Your task to perform on an android device: uninstall "AliExpress" Image 0: 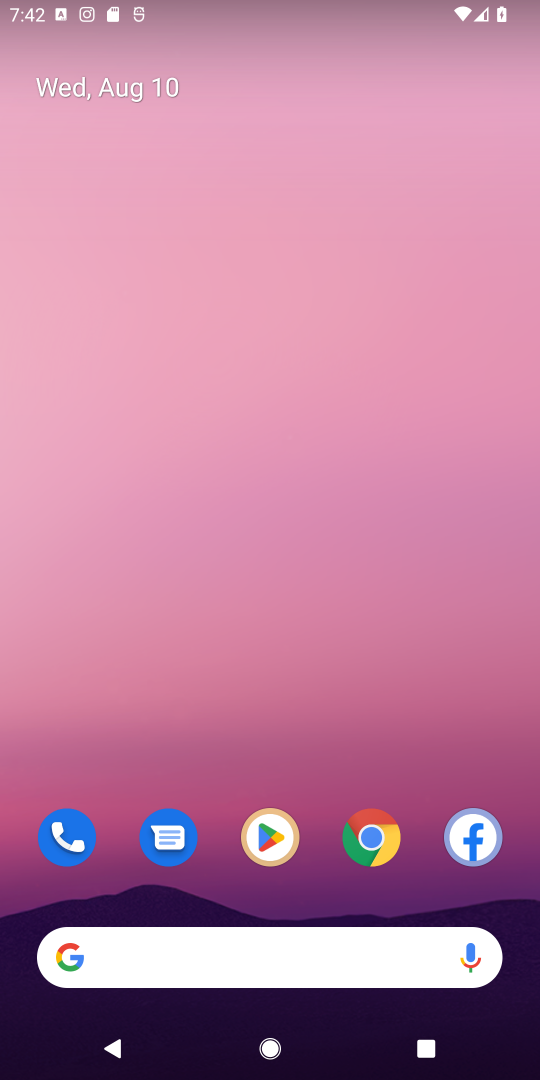
Step 0: press home button
Your task to perform on an android device: uninstall "AliExpress" Image 1: 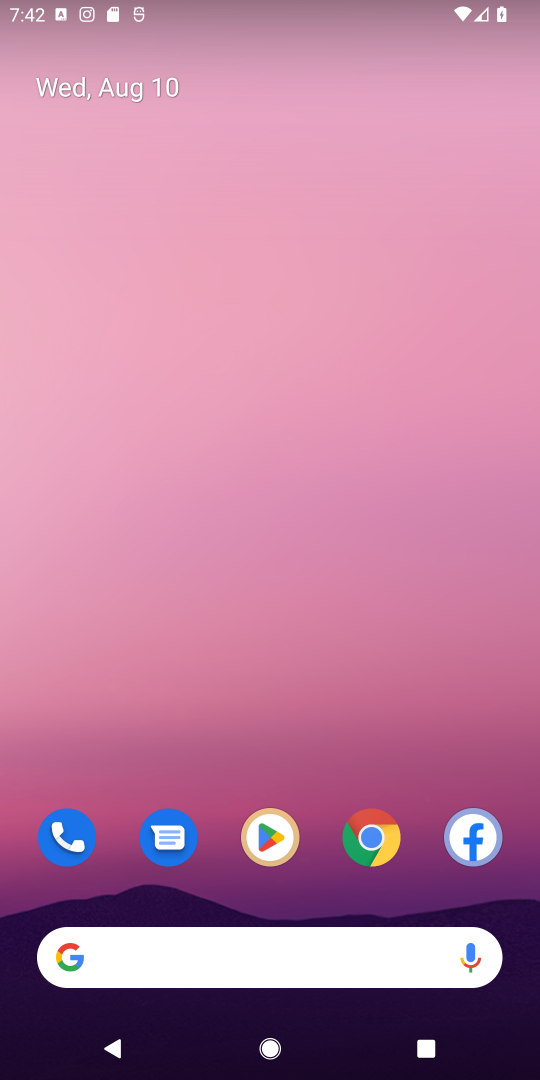
Step 1: click (268, 837)
Your task to perform on an android device: uninstall "AliExpress" Image 2: 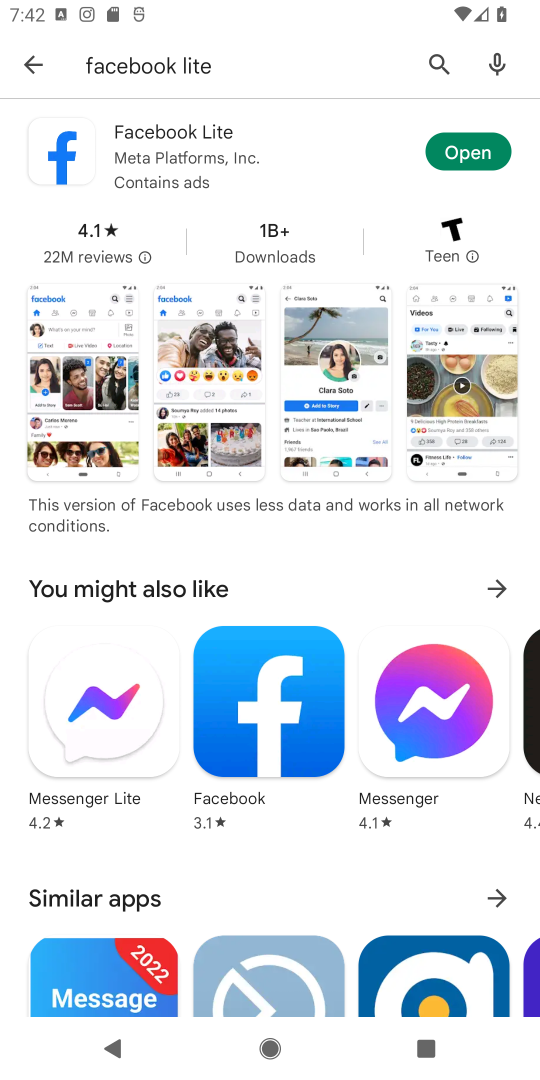
Step 2: click (436, 58)
Your task to perform on an android device: uninstall "AliExpress" Image 3: 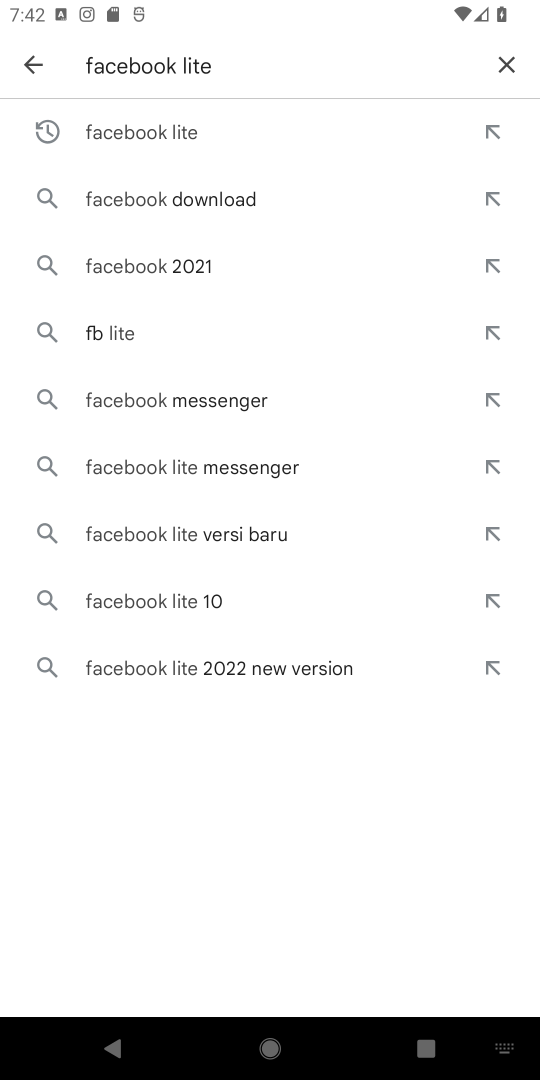
Step 3: click (510, 60)
Your task to perform on an android device: uninstall "AliExpress" Image 4: 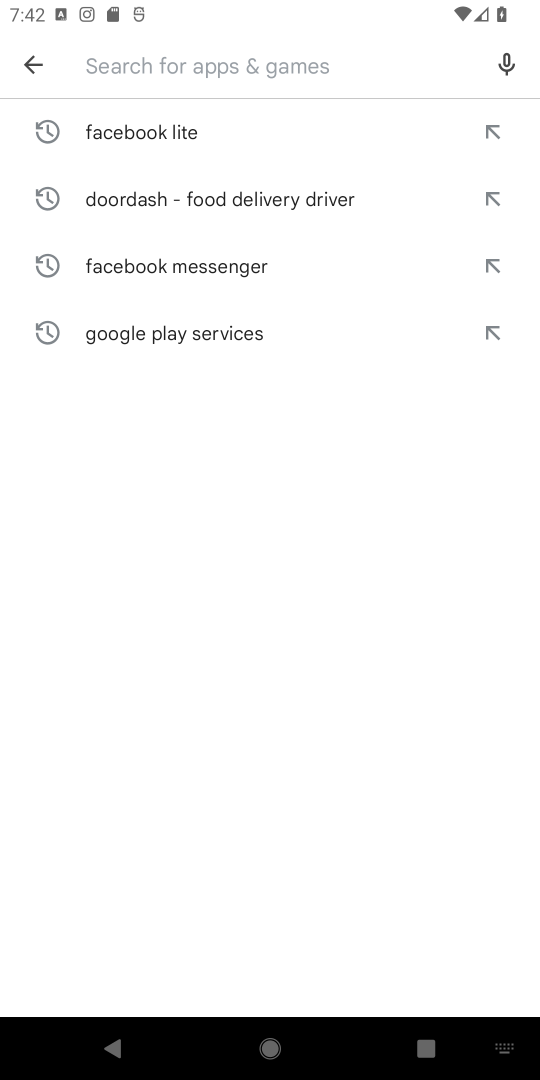
Step 4: type "AliExpress"
Your task to perform on an android device: uninstall "AliExpress" Image 5: 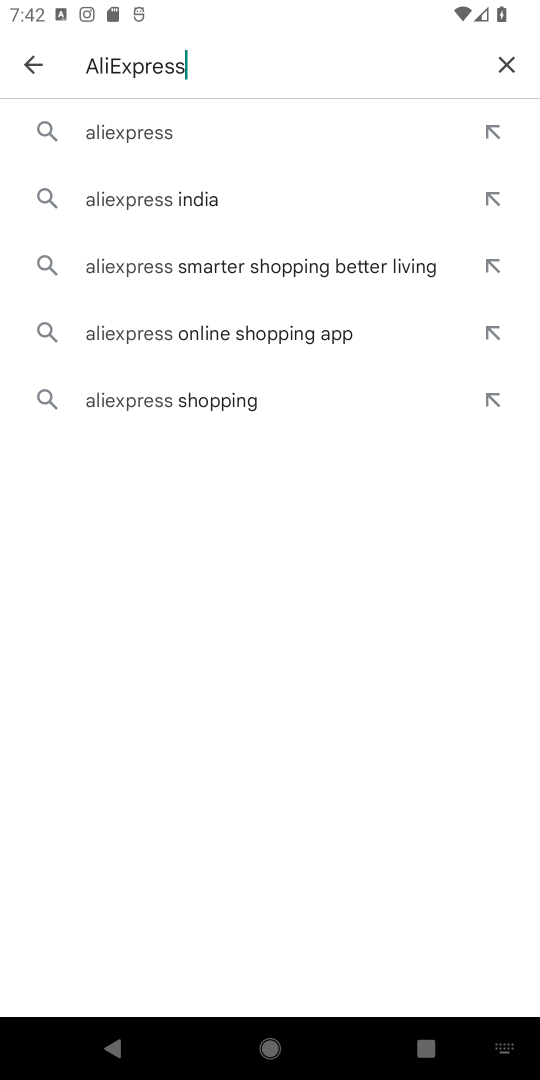
Step 5: click (154, 127)
Your task to perform on an android device: uninstall "AliExpress" Image 6: 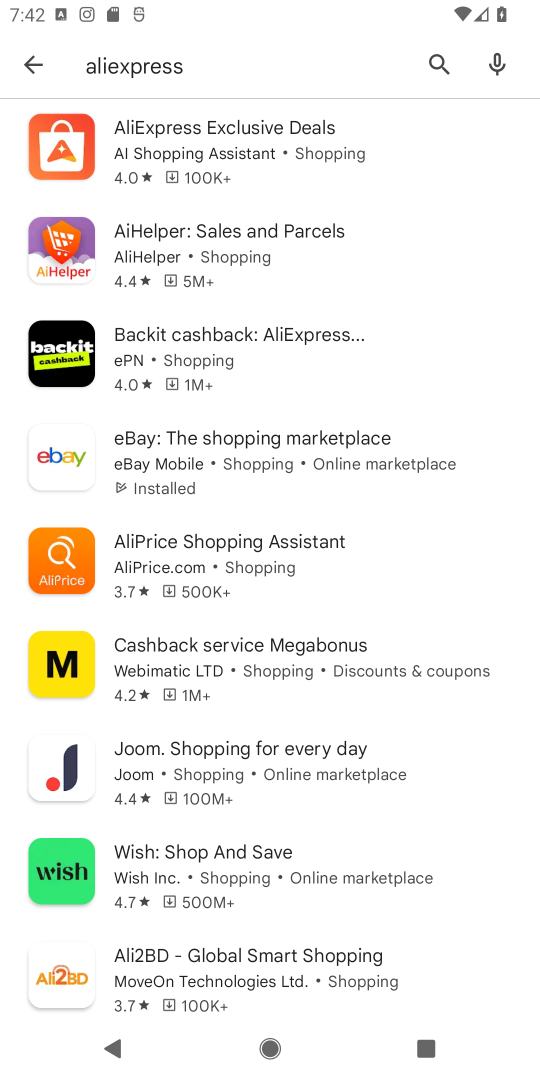
Step 6: click (196, 152)
Your task to perform on an android device: uninstall "AliExpress" Image 7: 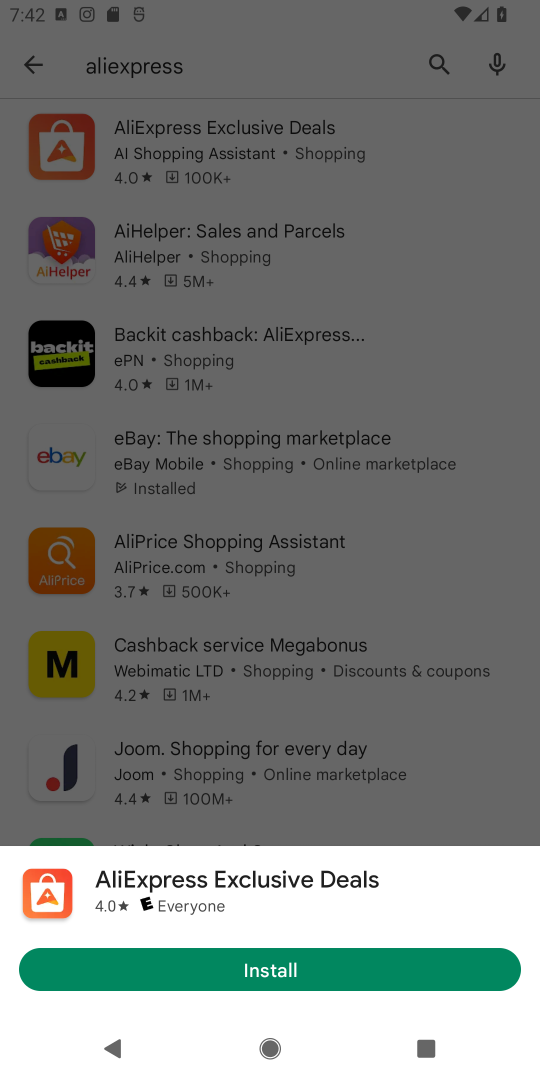
Step 7: task complete